Your task to perform on an android device: turn off priority inbox in the gmail app Image 0: 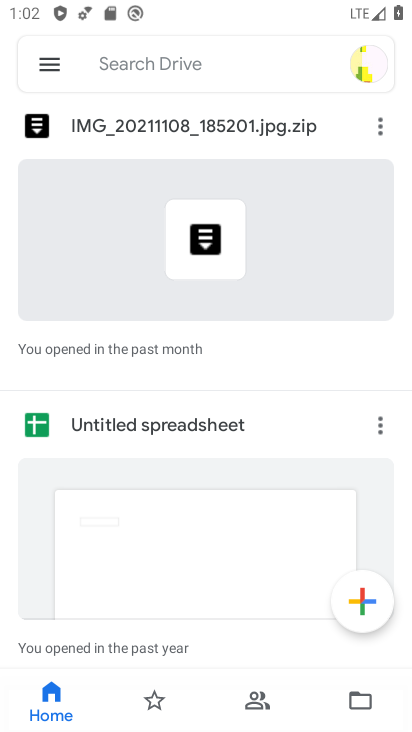
Step 0: press home button
Your task to perform on an android device: turn off priority inbox in the gmail app Image 1: 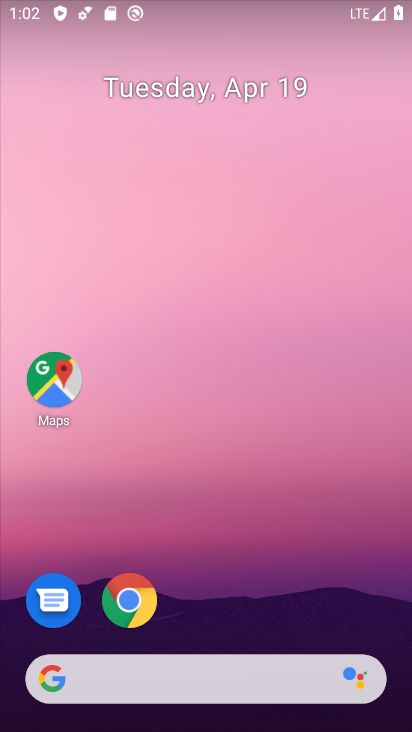
Step 1: drag from (205, 628) to (115, 280)
Your task to perform on an android device: turn off priority inbox in the gmail app Image 2: 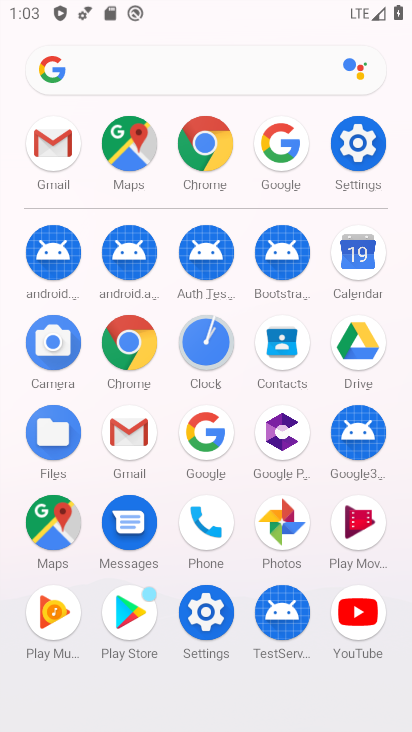
Step 2: click (142, 429)
Your task to perform on an android device: turn off priority inbox in the gmail app Image 3: 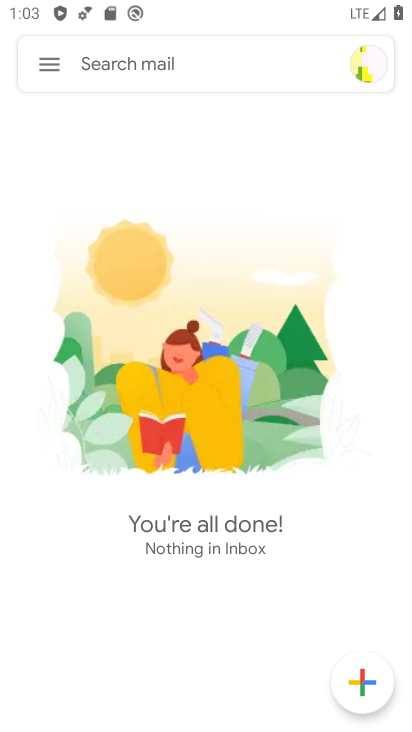
Step 3: click (38, 69)
Your task to perform on an android device: turn off priority inbox in the gmail app Image 4: 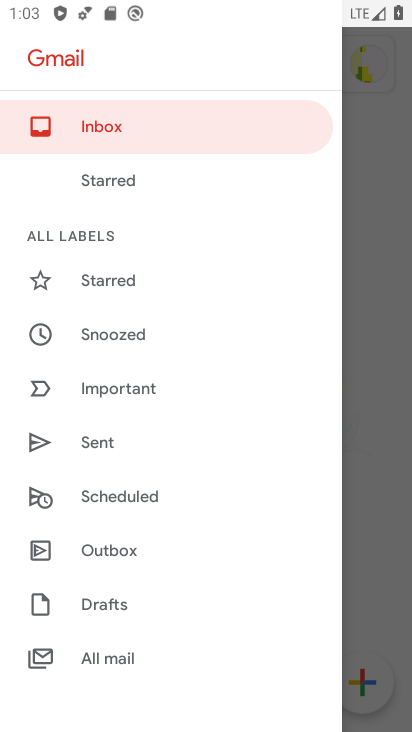
Step 4: drag from (121, 553) to (69, 274)
Your task to perform on an android device: turn off priority inbox in the gmail app Image 5: 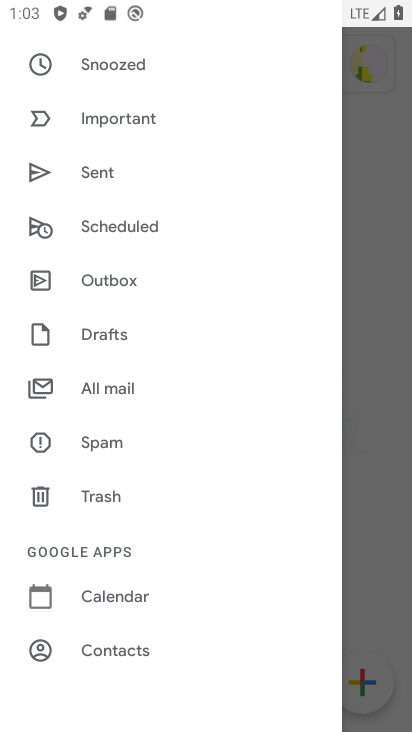
Step 5: drag from (113, 629) to (78, 252)
Your task to perform on an android device: turn off priority inbox in the gmail app Image 6: 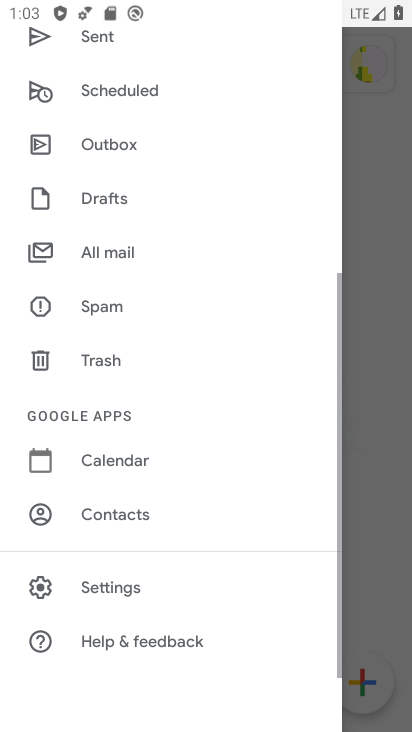
Step 6: click (125, 588)
Your task to perform on an android device: turn off priority inbox in the gmail app Image 7: 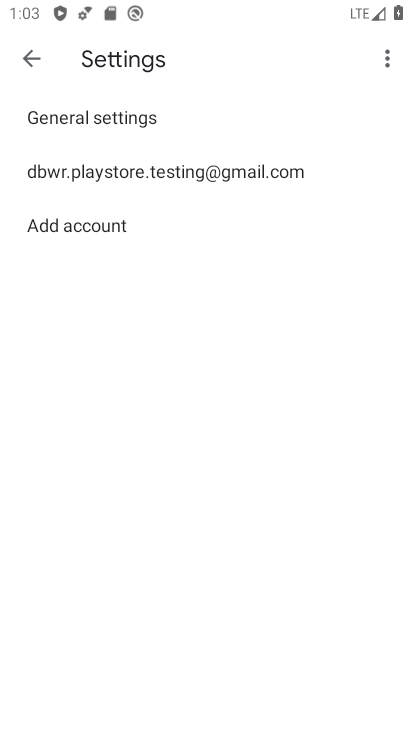
Step 7: click (64, 171)
Your task to perform on an android device: turn off priority inbox in the gmail app Image 8: 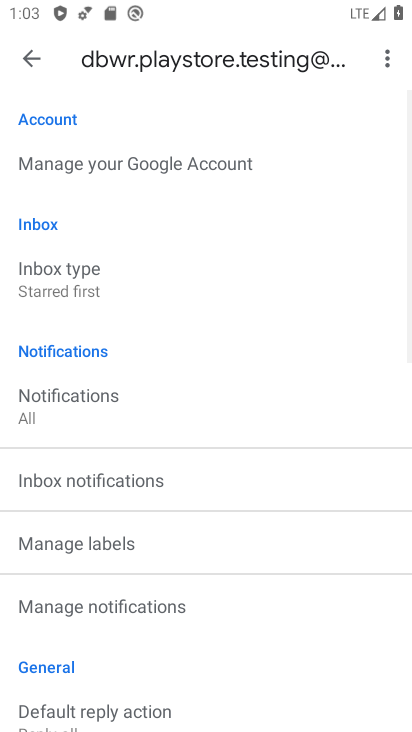
Step 8: click (104, 282)
Your task to perform on an android device: turn off priority inbox in the gmail app Image 9: 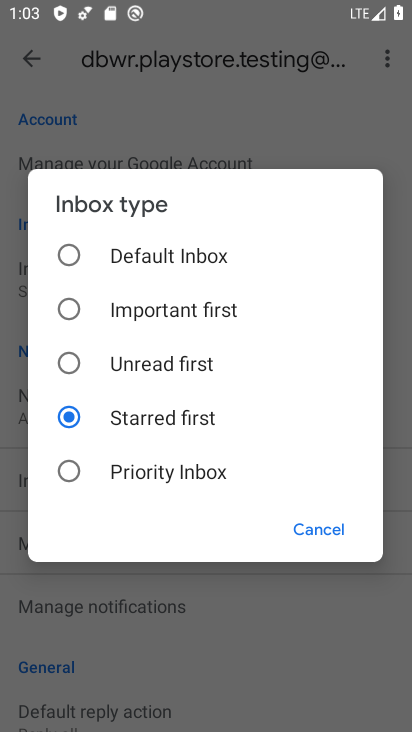
Step 9: click (131, 356)
Your task to perform on an android device: turn off priority inbox in the gmail app Image 10: 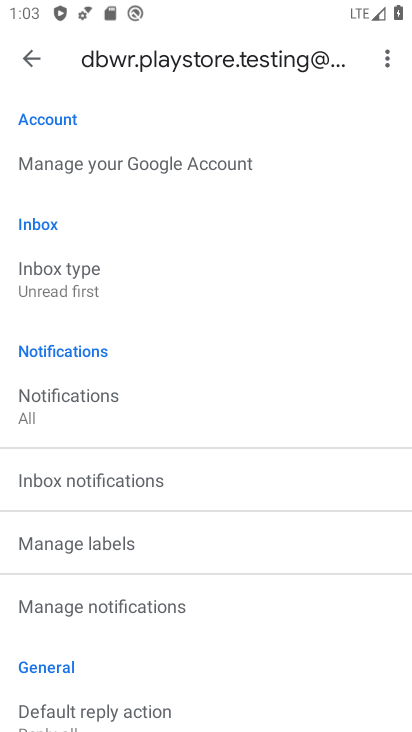
Step 10: task complete